Your task to perform on an android device: Open Wikipedia Image 0: 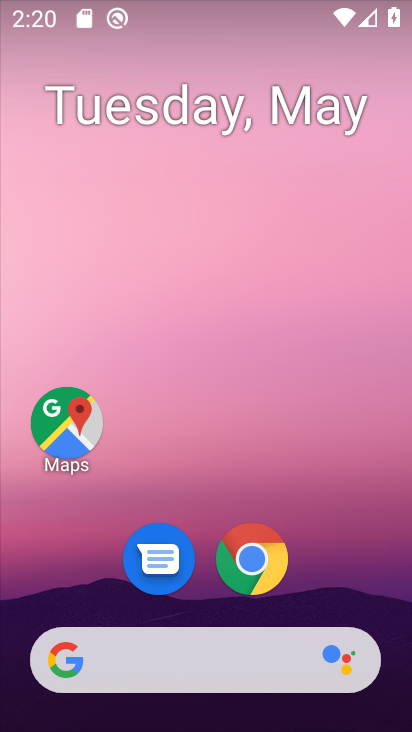
Step 0: click (242, 535)
Your task to perform on an android device: Open Wikipedia Image 1: 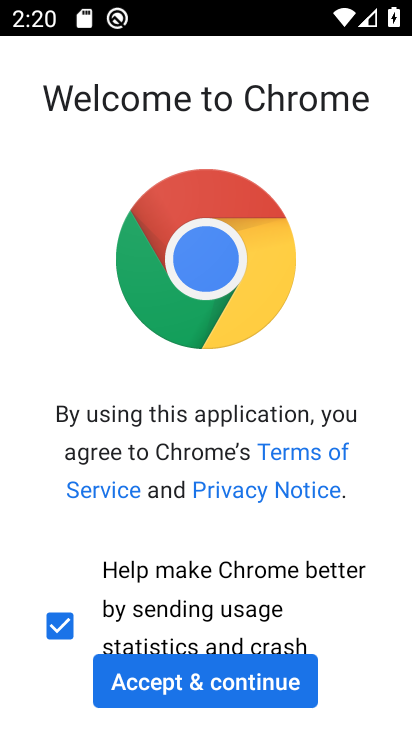
Step 1: click (206, 666)
Your task to perform on an android device: Open Wikipedia Image 2: 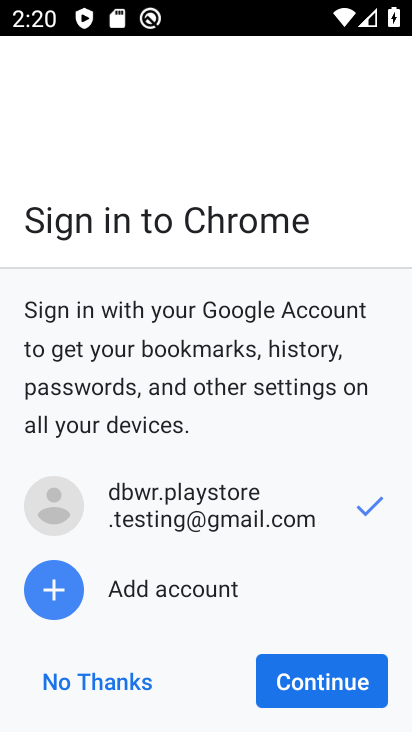
Step 2: click (305, 686)
Your task to perform on an android device: Open Wikipedia Image 3: 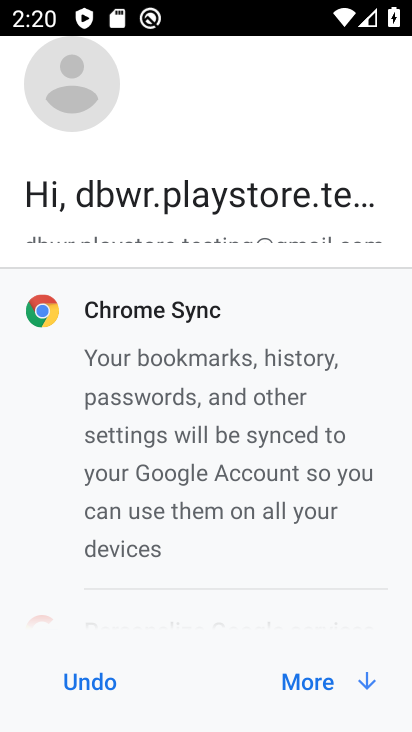
Step 3: click (305, 686)
Your task to perform on an android device: Open Wikipedia Image 4: 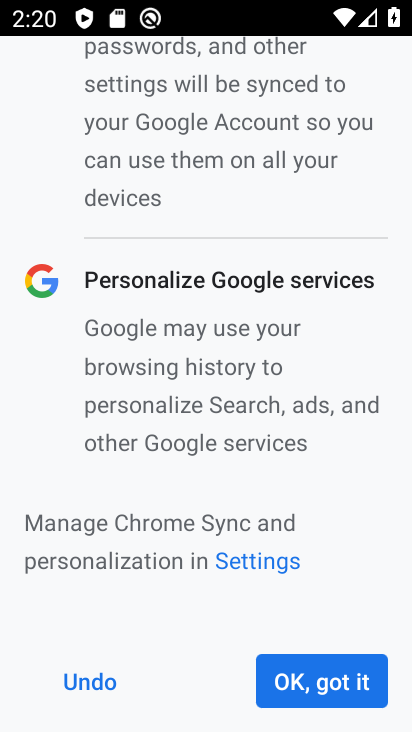
Step 4: click (305, 686)
Your task to perform on an android device: Open Wikipedia Image 5: 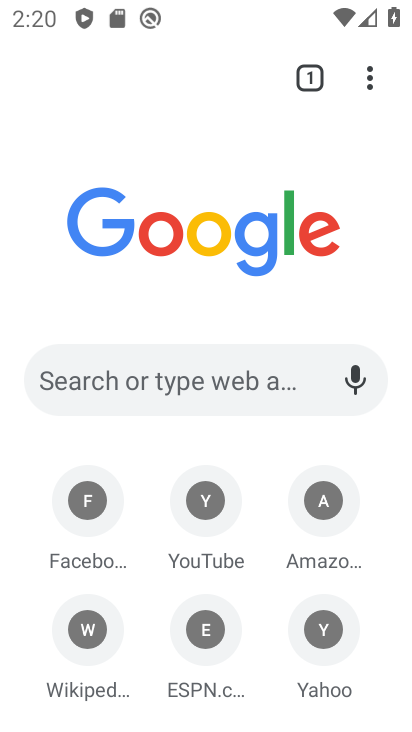
Step 5: click (156, 387)
Your task to perform on an android device: Open Wikipedia Image 6: 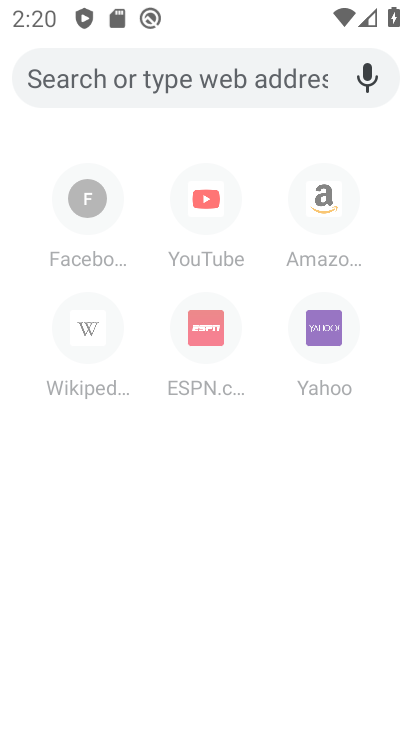
Step 6: click (88, 603)
Your task to perform on an android device: Open Wikipedia Image 7: 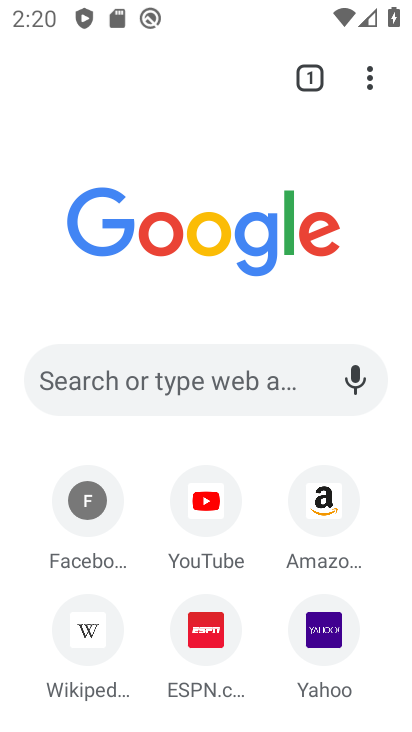
Step 7: click (82, 363)
Your task to perform on an android device: Open Wikipedia Image 8: 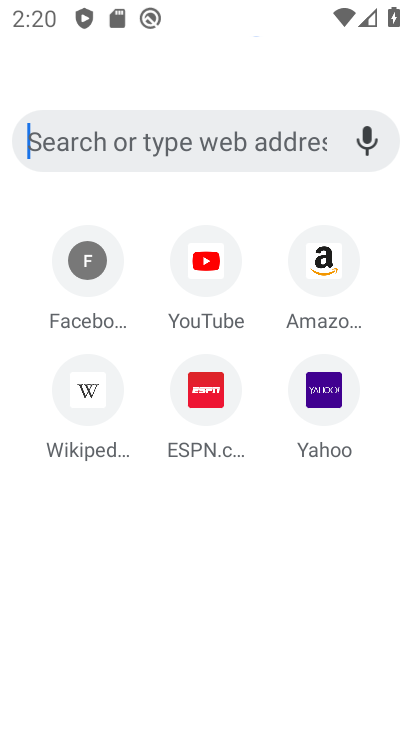
Step 8: click (102, 617)
Your task to perform on an android device: Open Wikipedia Image 9: 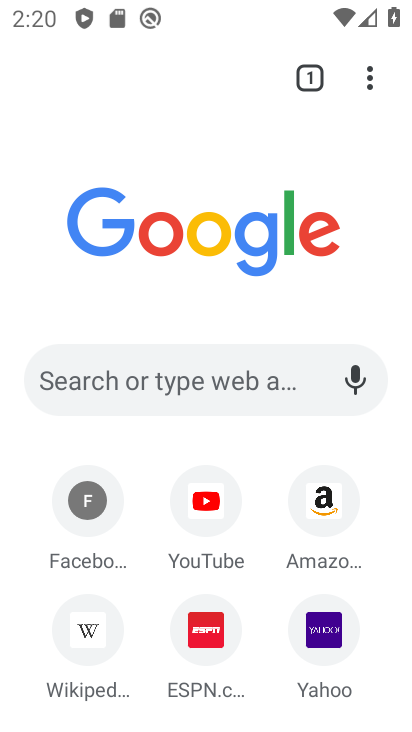
Step 9: click (82, 635)
Your task to perform on an android device: Open Wikipedia Image 10: 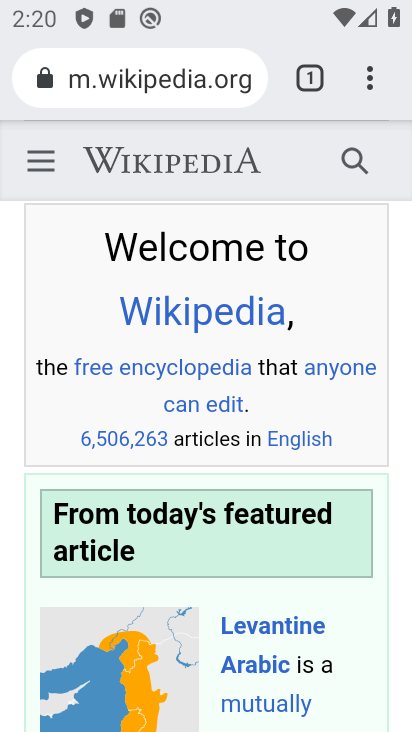
Step 10: task complete